Your task to perform on an android device: Open privacy settings Image 0: 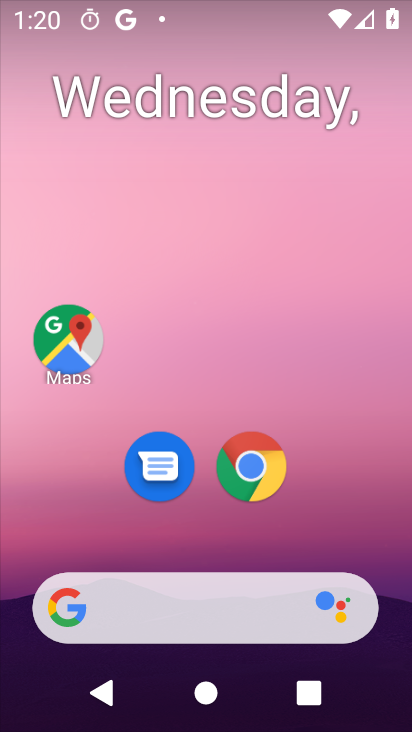
Step 0: drag from (290, 483) to (290, 160)
Your task to perform on an android device: Open privacy settings Image 1: 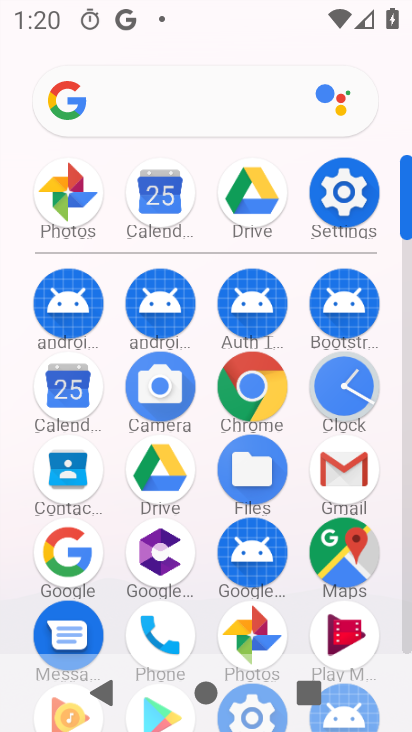
Step 1: click (340, 208)
Your task to perform on an android device: Open privacy settings Image 2: 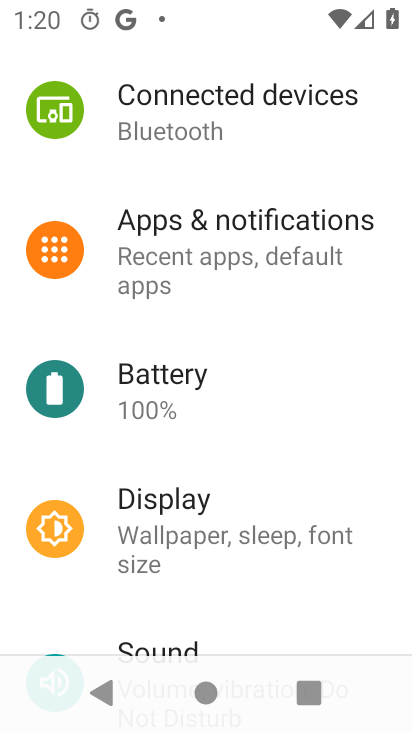
Step 2: task complete